Your task to perform on an android device: open a bookmark in the chrome app Image 0: 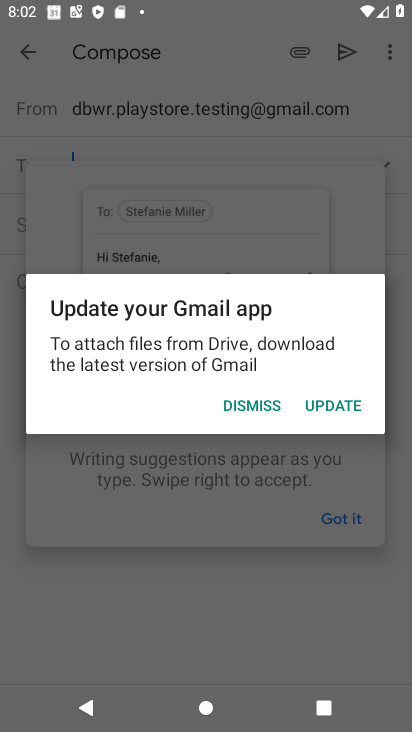
Step 0: press home button
Your task to perform on an android device: open a bookmark in the chrome app Image 1: 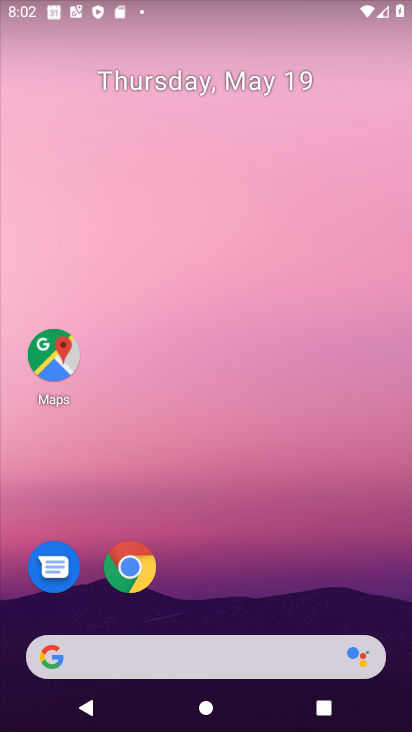
Step 1: click (133, 555)
Your task to perform on an android device: open a bookmark in the chrome app Image 2: 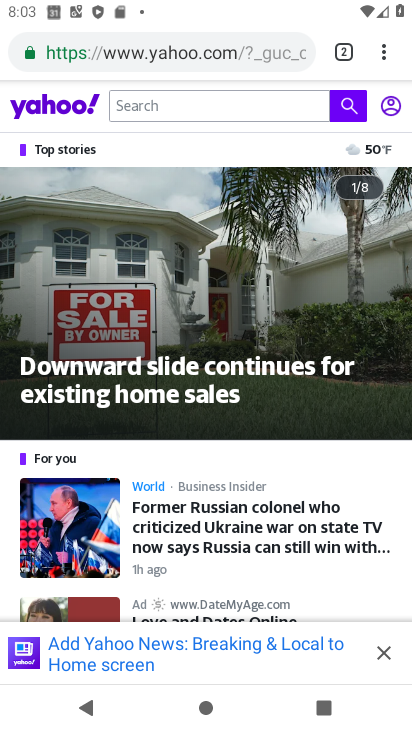
Step 2: click (390, 55)
Your task to perform on an android device: open a bookmark in the chrome app Image 3: 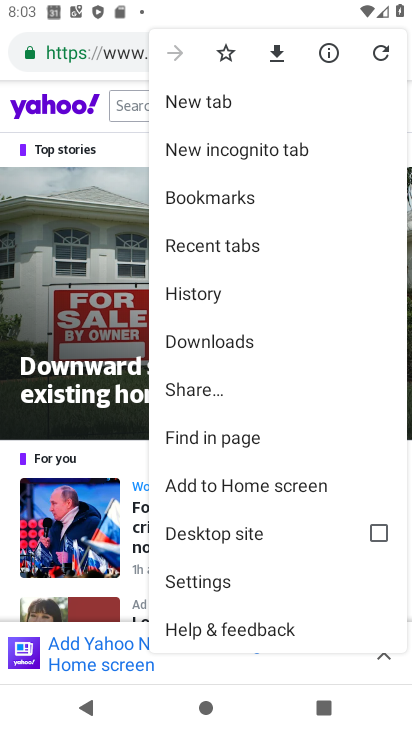
Step 3: click (223, 194)
Your task to perform on an android device: open a bookmark in the chrome app Image 4: 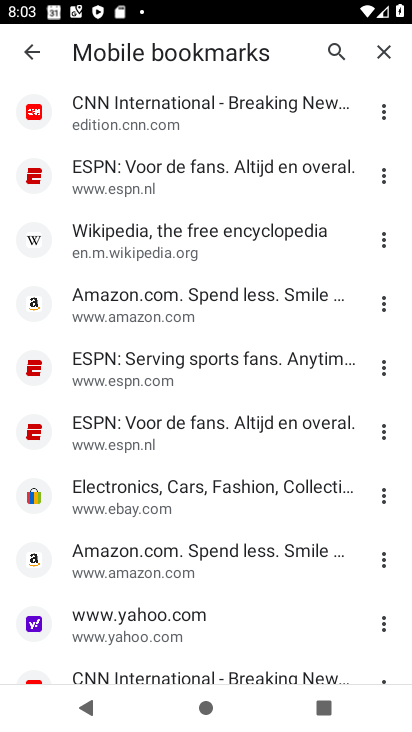
Step 4: click (196, 176)
Your task to perform on an android device: open a bookmark in the chrome app Image 5: 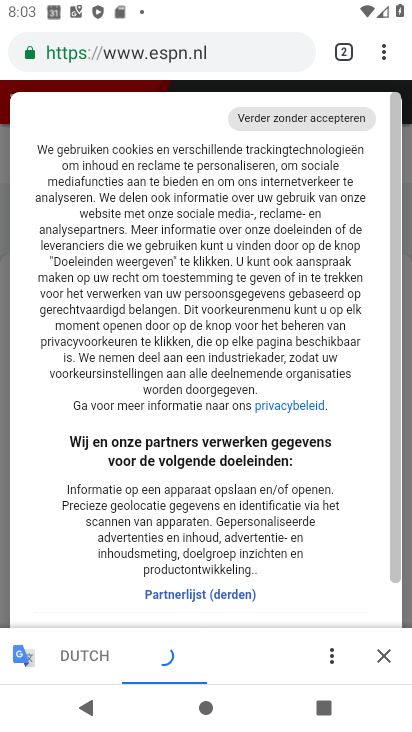
Step 5: task complete